Your task to perform on an android device: open app "McDonald's" Image 0: 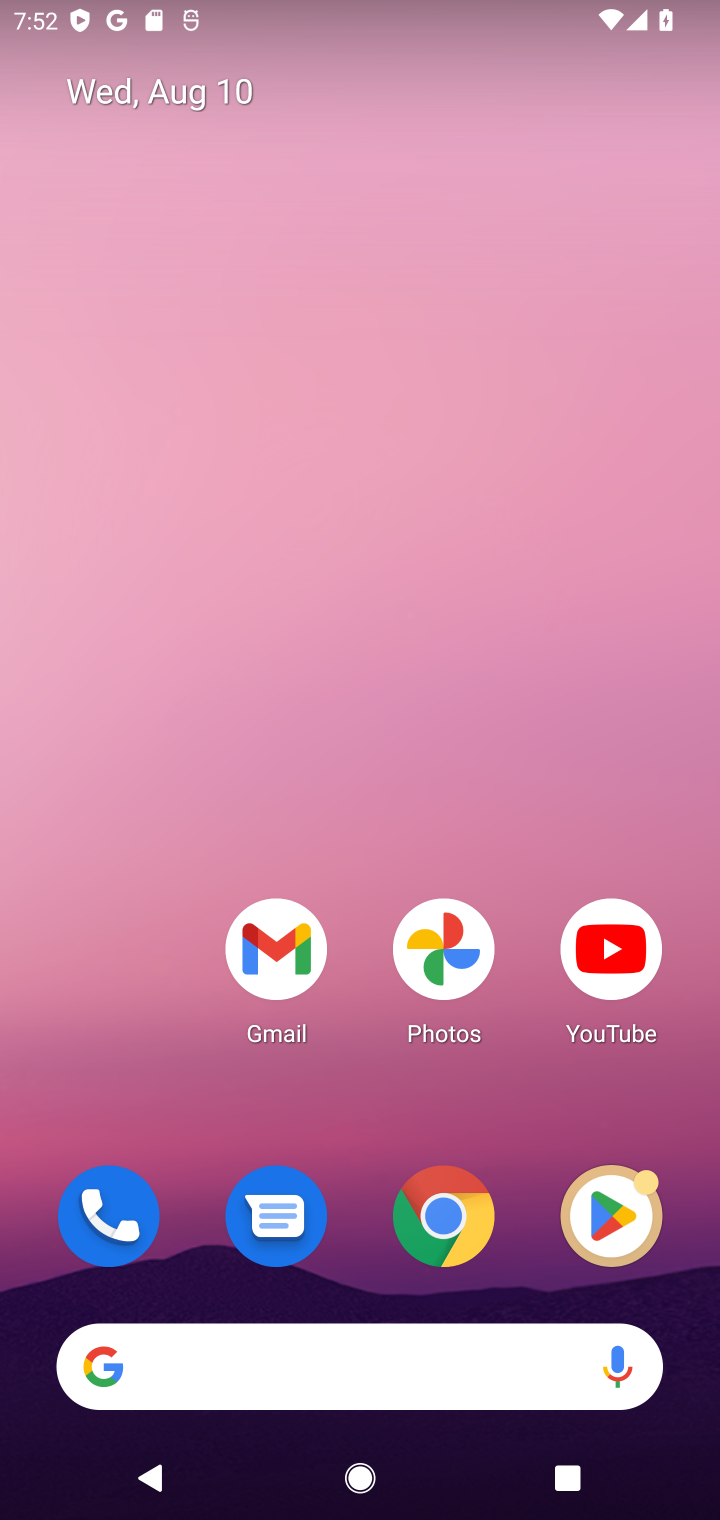
Step 0: click (630, 1186)
Your task to perform on an android device: open app "McDonald's" Image 1: 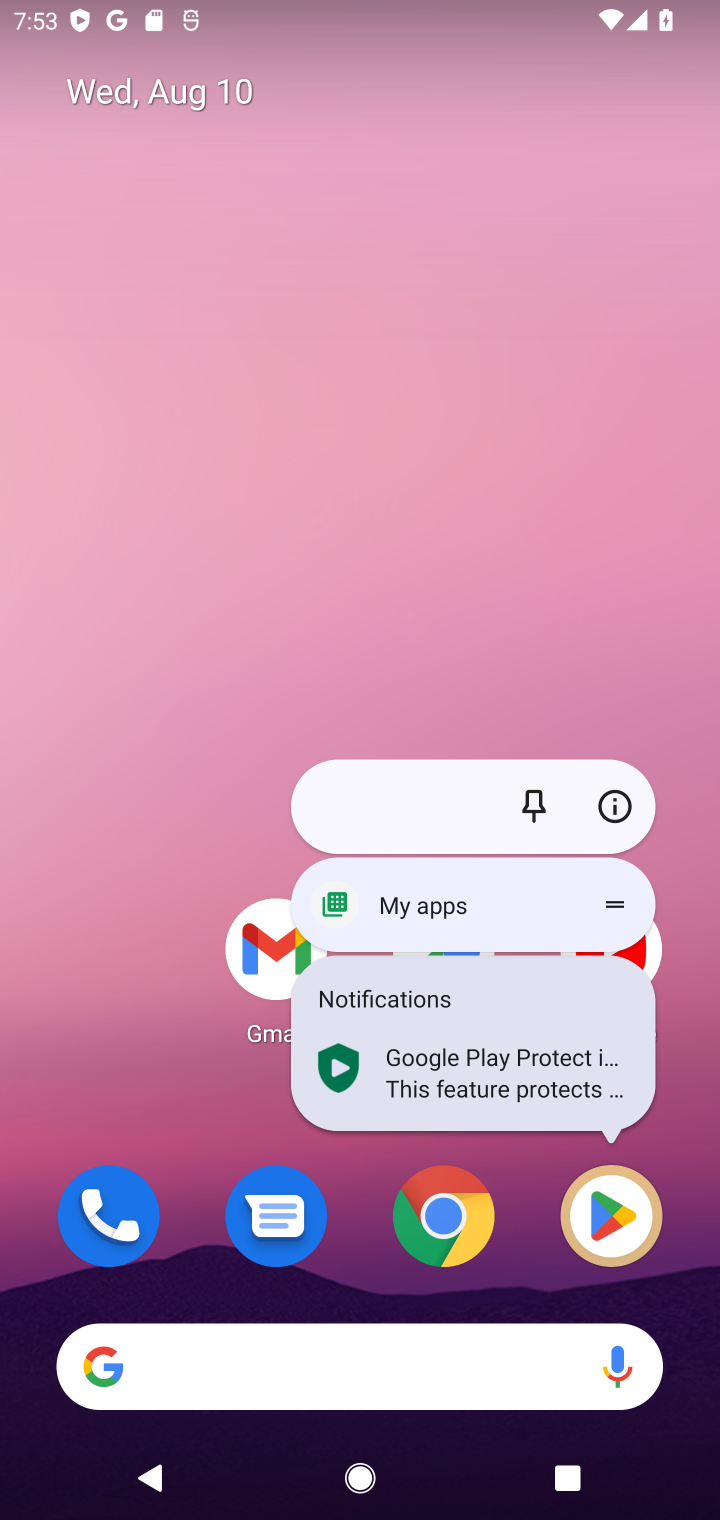
Step 1: click (630, 1220)
Your task to perform on an android device: open app "McDonald's" Image 2: 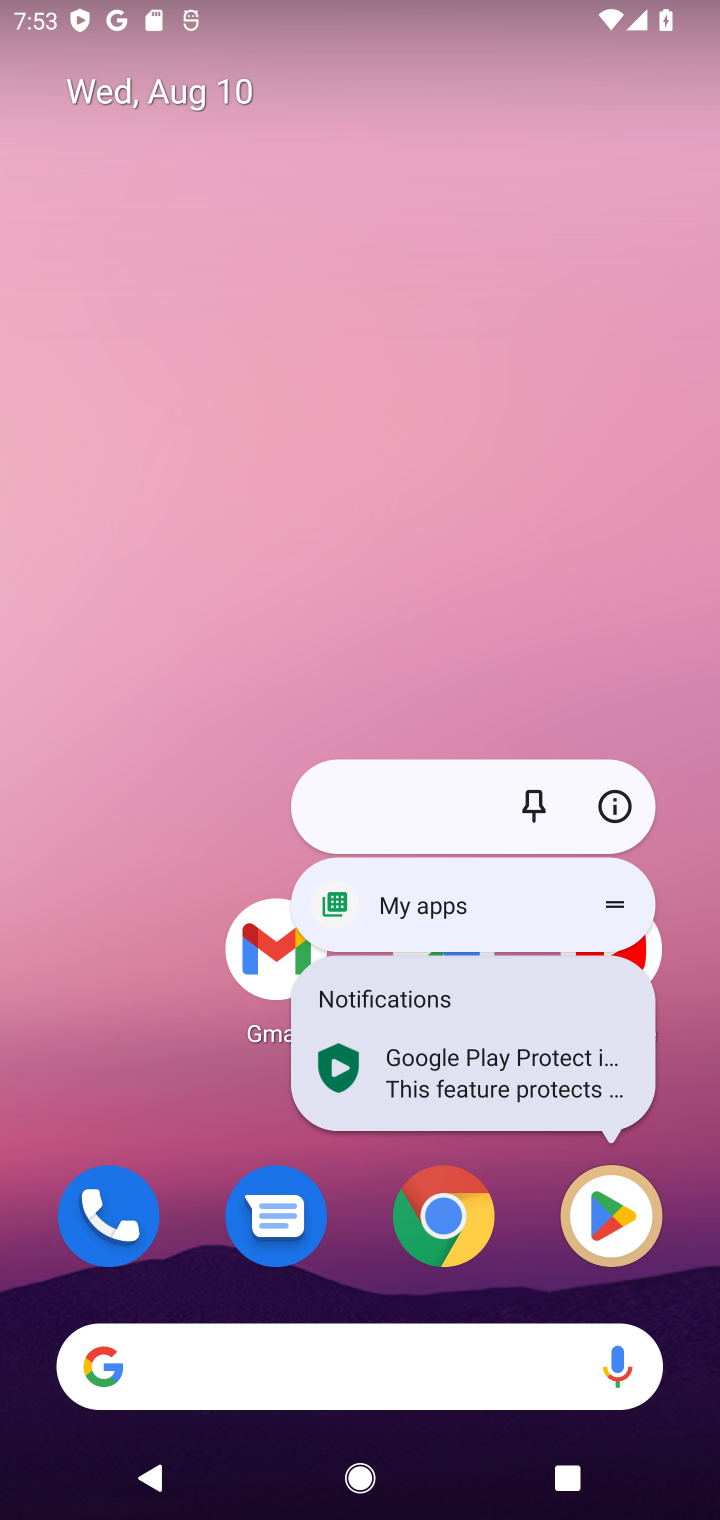
Step 2: click (605, 1227)
Your task to perform on an android device: open app "McDonald's" Image 3: 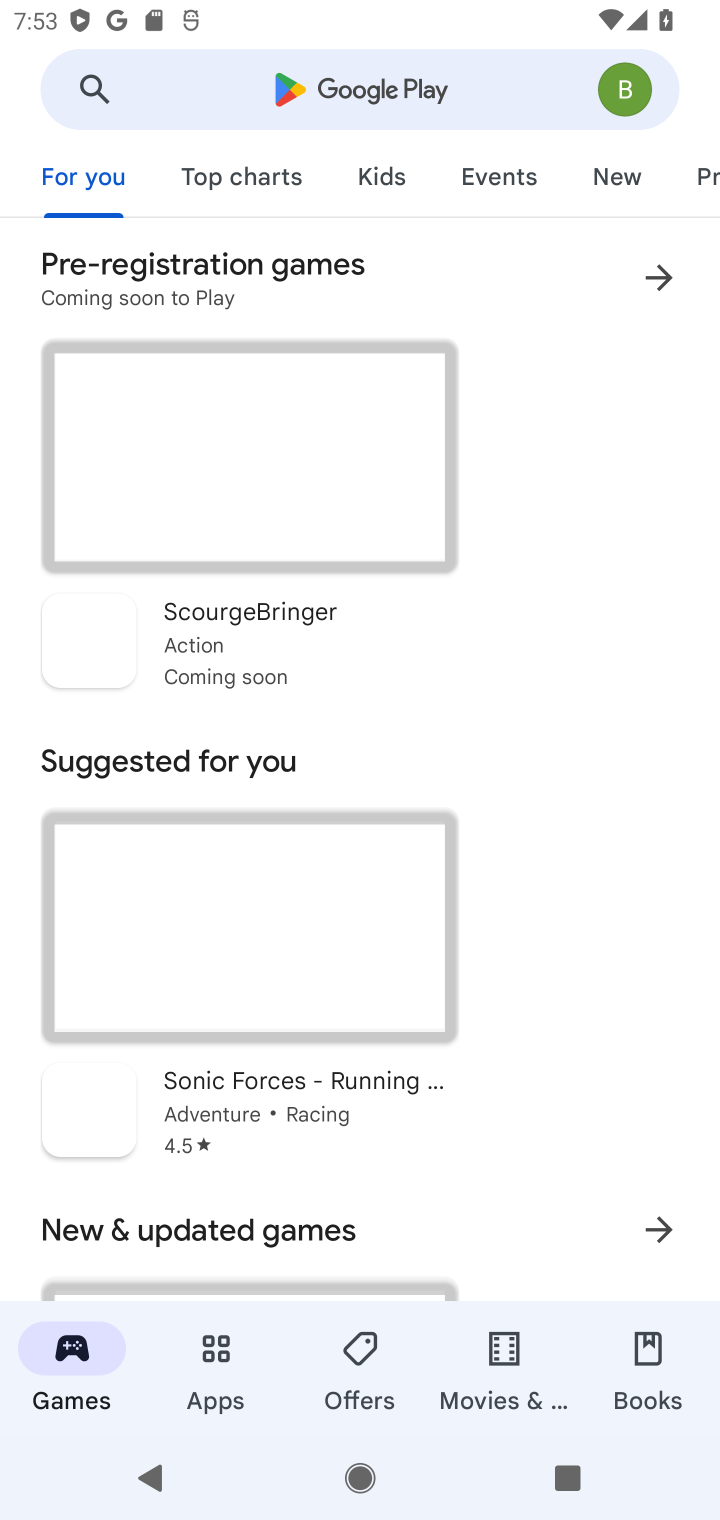
Step 3: click (374, 91)
Your task to perform on an android device: open app "McDonald's" Image 4: 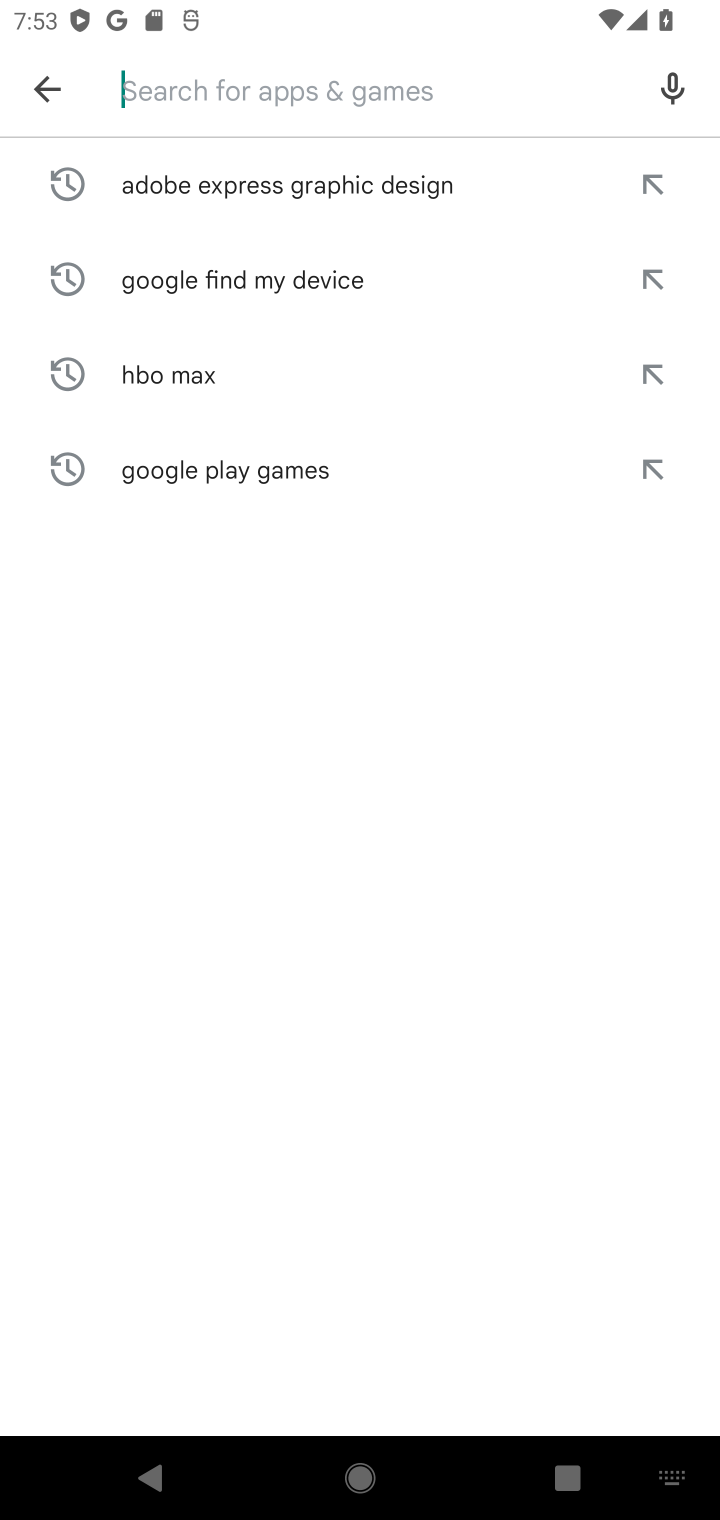
Step 4: click (152, 75)
Your task to perform on an android device: open app "McDonald's" Image 5: 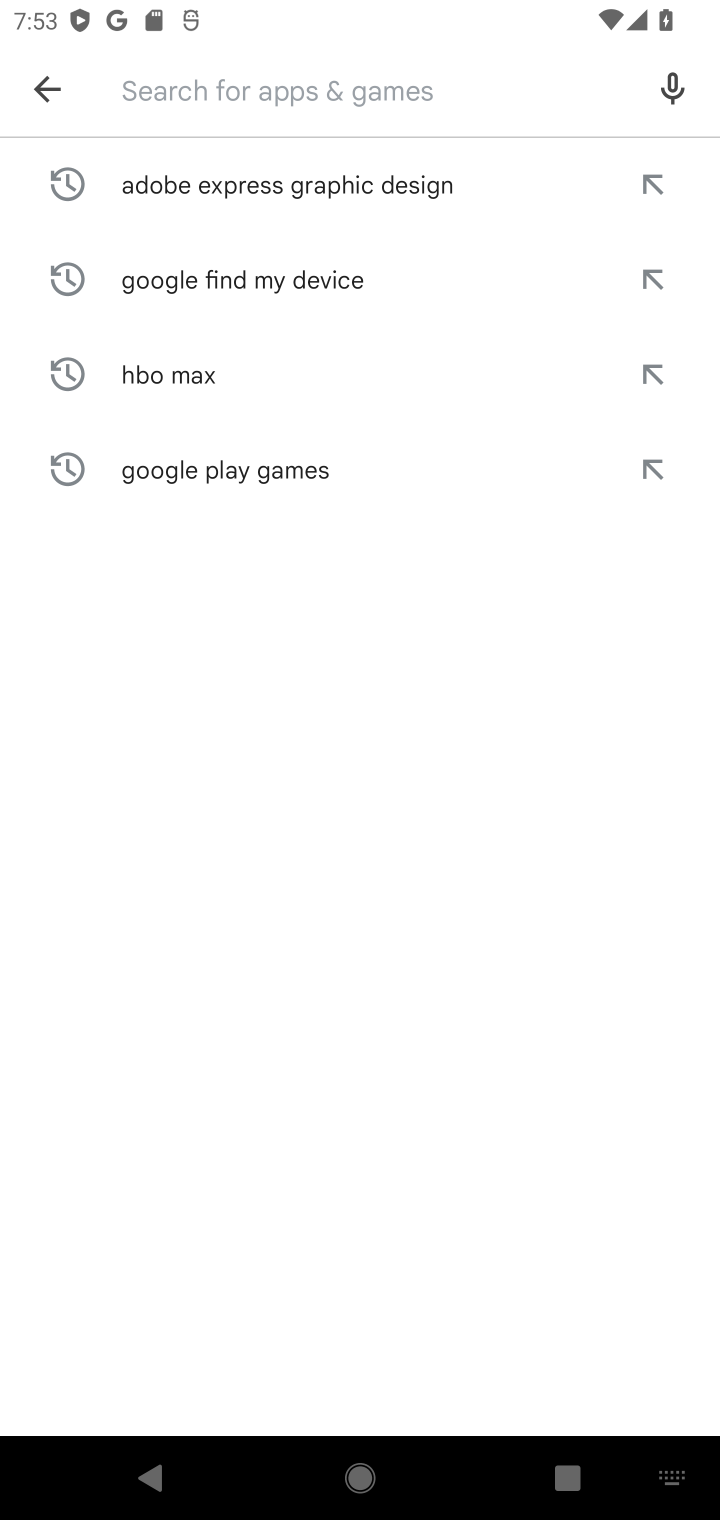
Step 5: type "McDonald's"
Your task to perform on an android device: open app "McDonald's" Image 6: 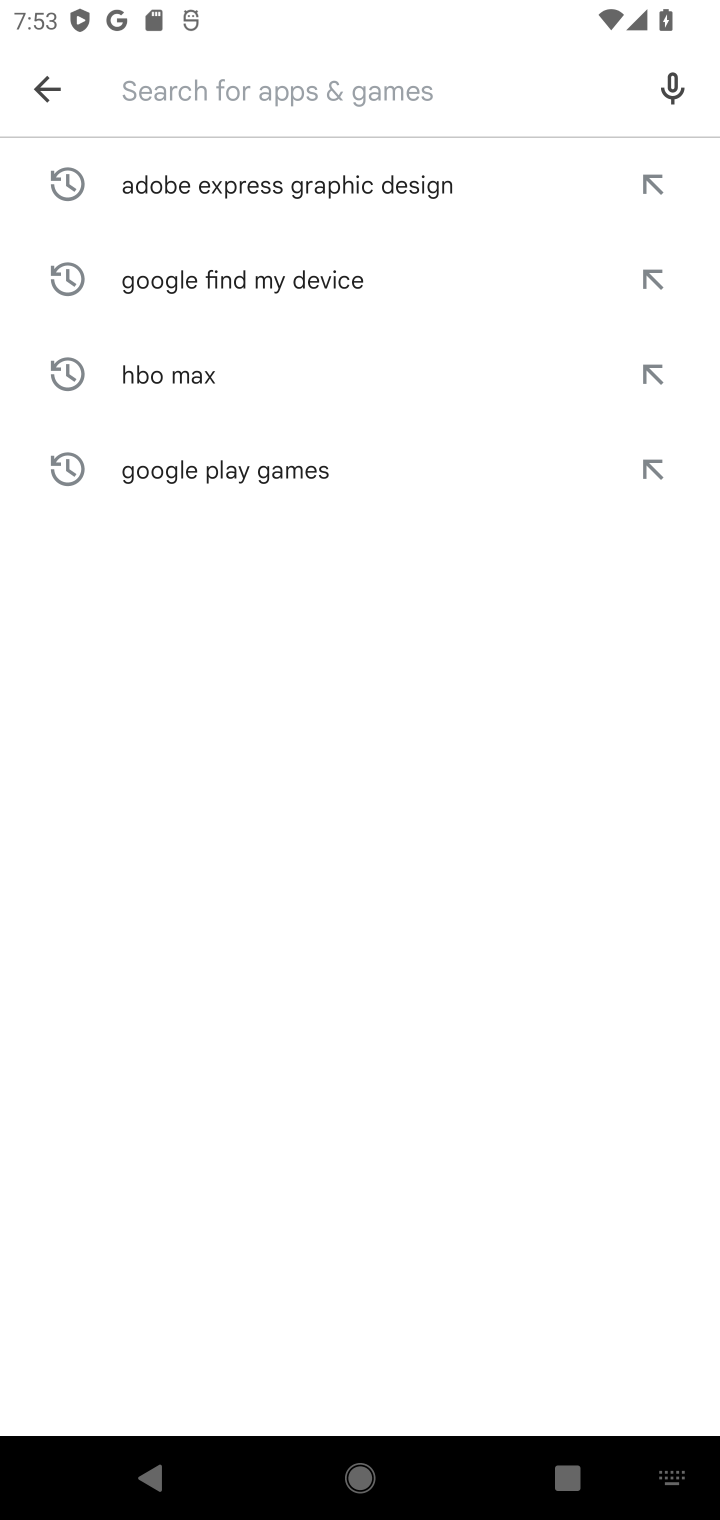
Step 6: click (400, 854)
Your task to perform on an android device: open app "McDonald's" Image 7: 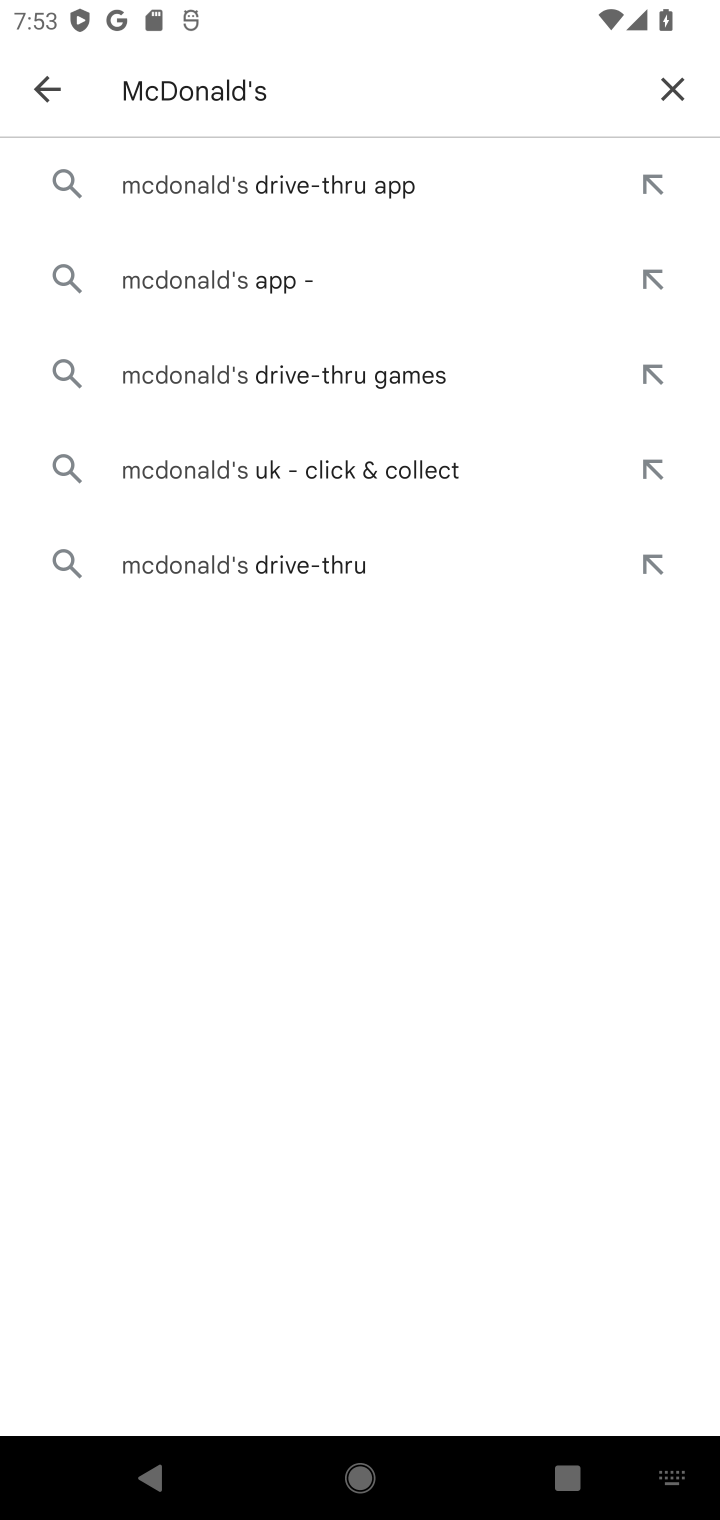
Step 7: click (224, 290)
Your task to perform on an android device: open app "McDonald's" Image 8: 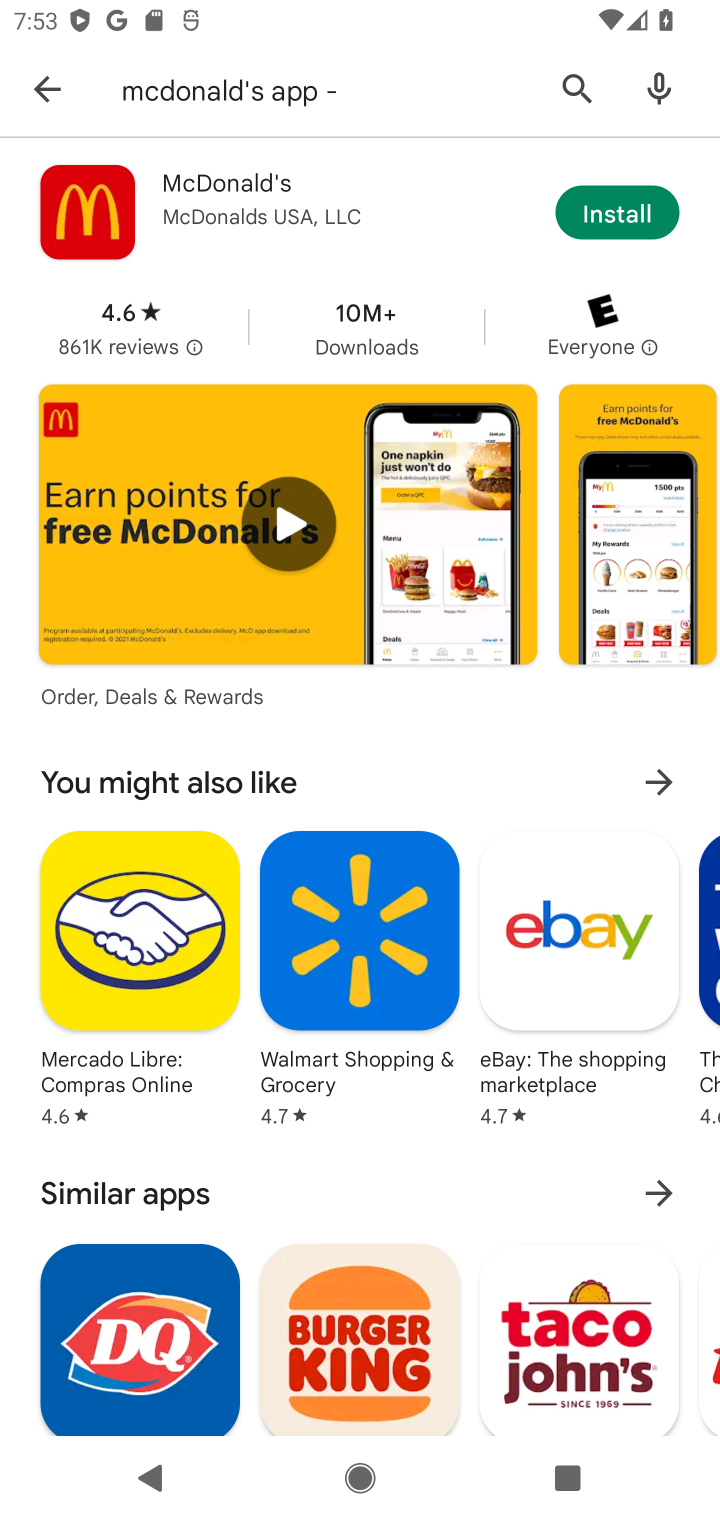
Step 8: task complete